Your task to perform on an android device: turn on improve location accuracy Image 0: 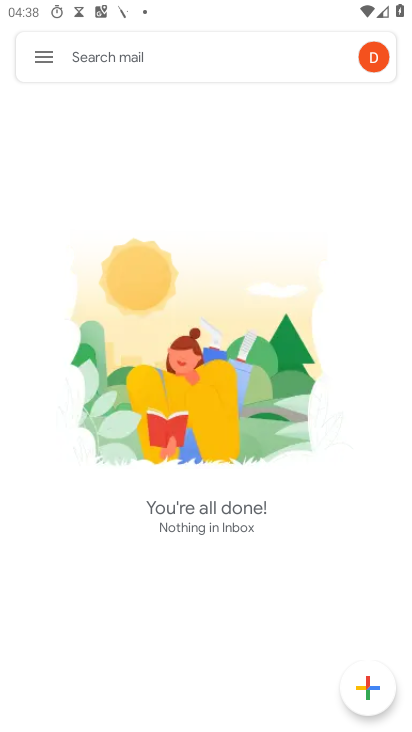
Step 0: press home button
Your task to perform on an android device: turn on improve location accuracy Image 1: 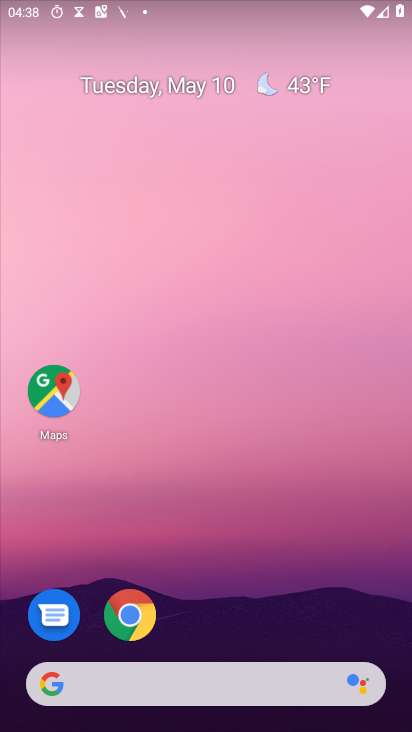
Step 1: drag from (189, 667) to (185, 50)
Your task to perform on an android device: turn on improve location accuracy Image 2: 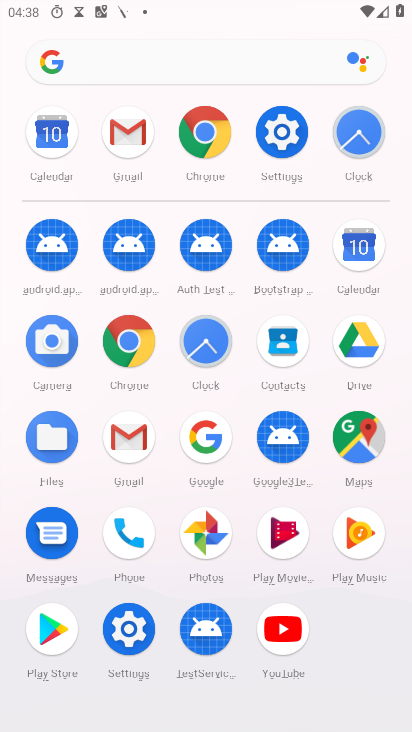
Step 2: click (131, 646)
Your task to perform on an android device: turn on improve location accuracy Image 3: 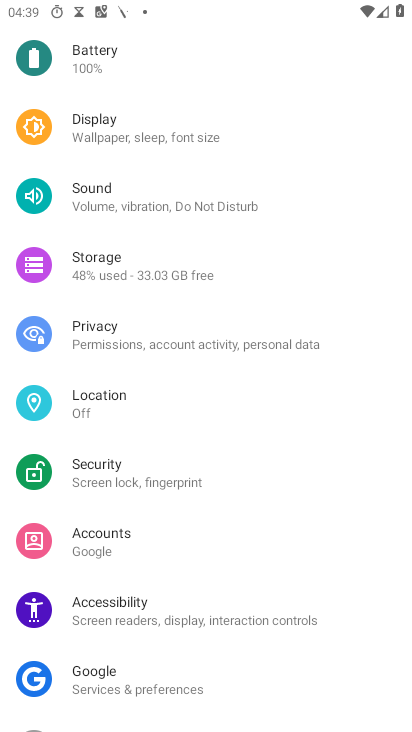
Step 3: click (127, 401)
Your task to perform on an android device: turn on improve location accuracy Image 4: 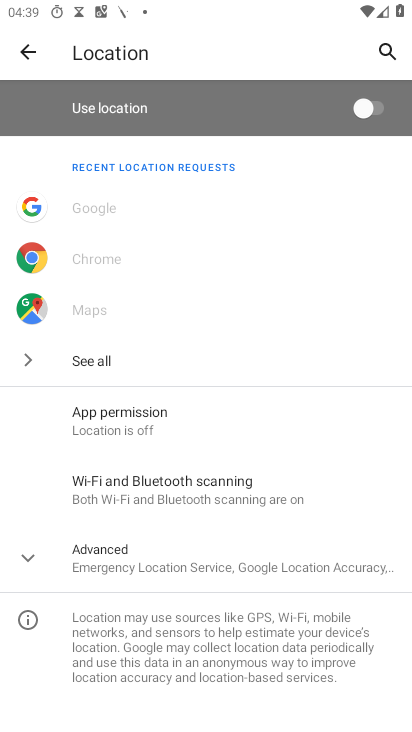
Step 4: click (175, 560)
Your task to perform on an android device: turn on improve location accuracy Image 5: 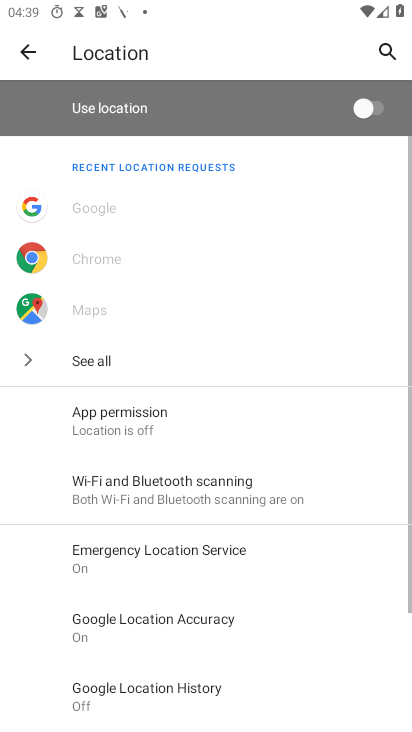
Step 5: drag from (227, 675) to (228, 307)
Your task to perform on an android device: turn on improve location accuracy Image 6: 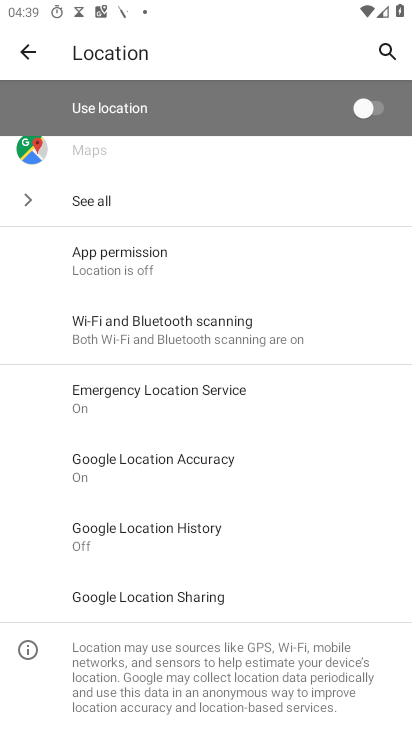
Step 6: click (187, 463)
Your task to perform on an android device: turn on improve location accuracy Image 7: 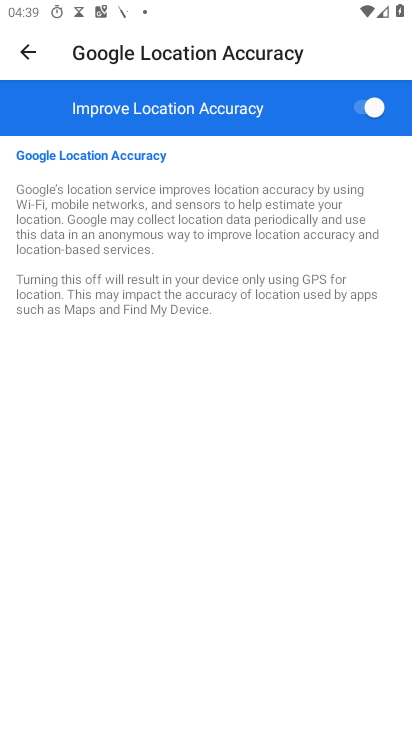
Step 7: task complete